Your task to perform on an android device: change the upload size in google photos Image 0: 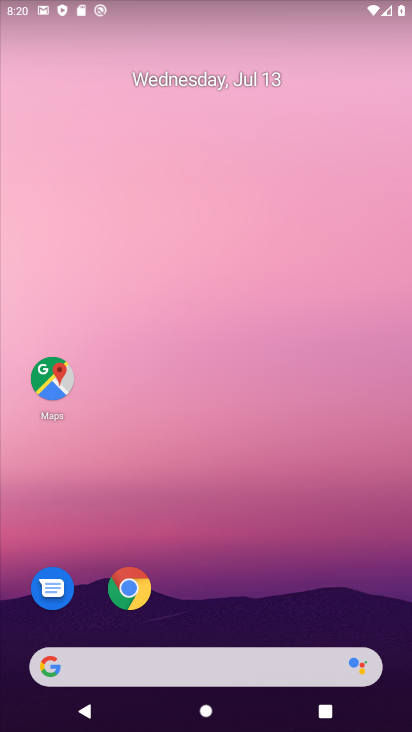
Step 0: drag from (204, 606) to (211, 165)
Your task to perform on an android device: change the upload size in google photos Image 1: 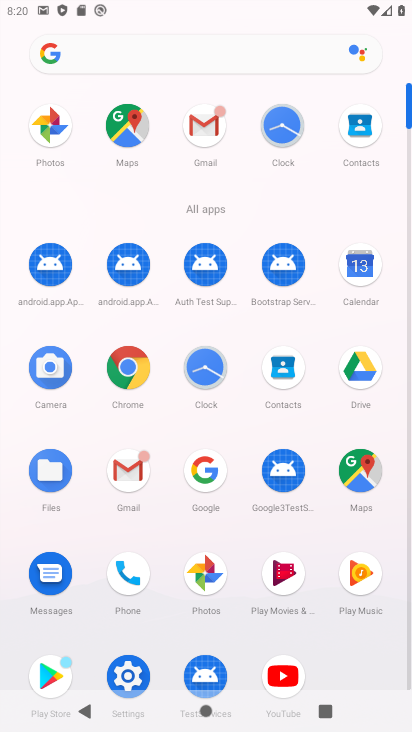
Step 1: click (199, 579)
Your task to perform on an android device: change the upload size in google photos Image 2: 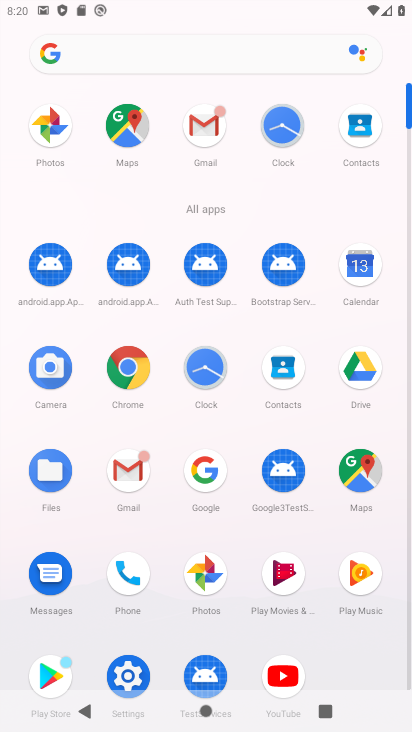
Step 2: click (211, 575)
Your task to perform on an android device: change the upload size in google photos Image 3: 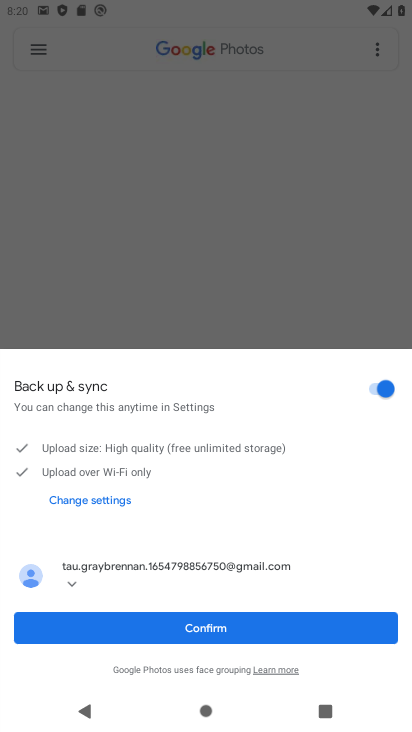
Step 3: click (204, 629)
Your task to perform on an android device: change the upload size in google photos Image 4: 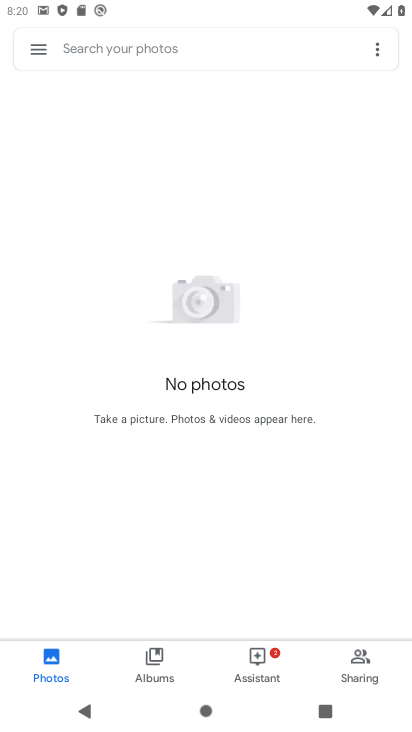
Step 4: click (39, 47)
Your task to perform on an android device: change the upload size in google photos Image 5: 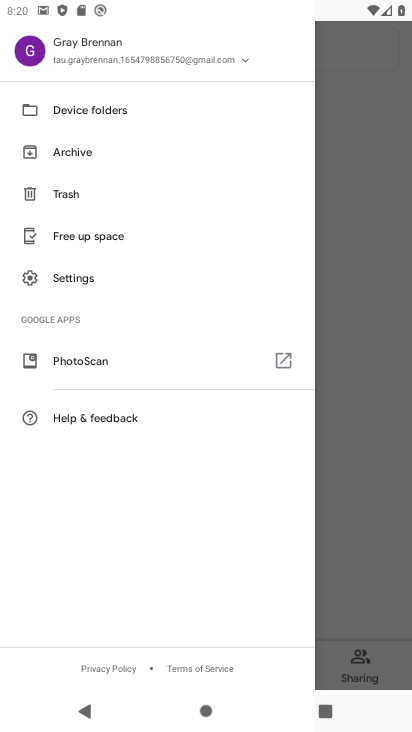
Step 5: click (60, 287)
Your task to perform on an android device: change the upload size in google photos Image 6: 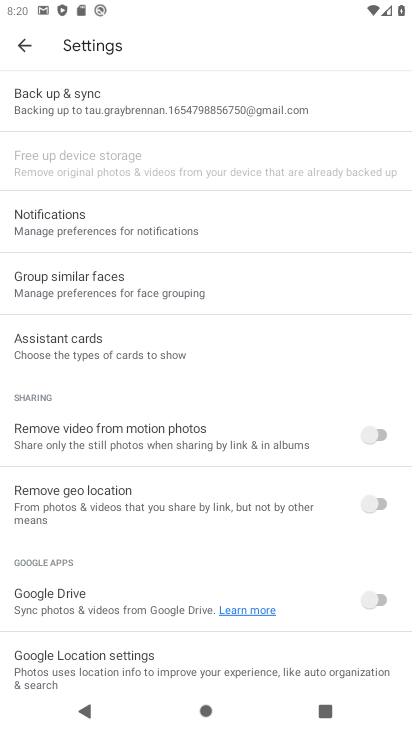
Step 6: click (108, 94)
Your task to perform on an android device: change the upload size in google photos Image 7: 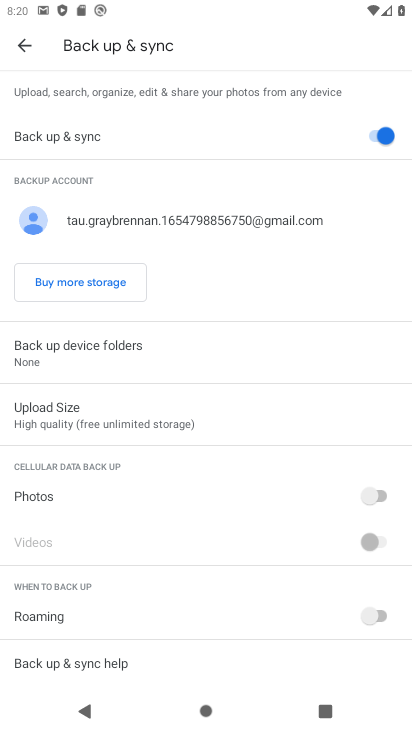
Step 7: click (93, 421)
Your task to perform on an android device: change the upload size in google photos Image 8: 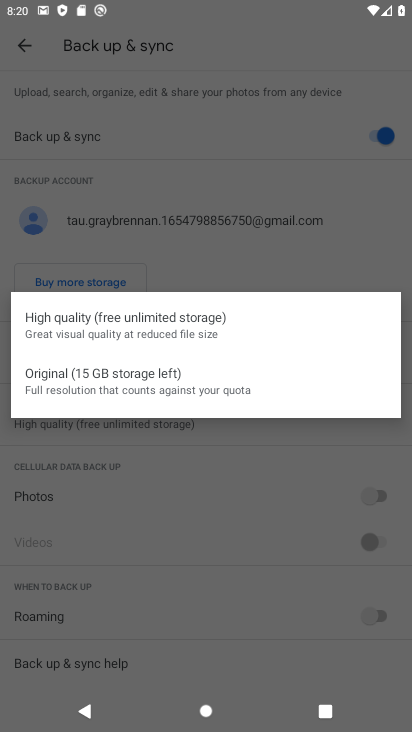
Step 8: click (104, 386)
Your task to perform on an android device: change the upload size in google photos Image 9: 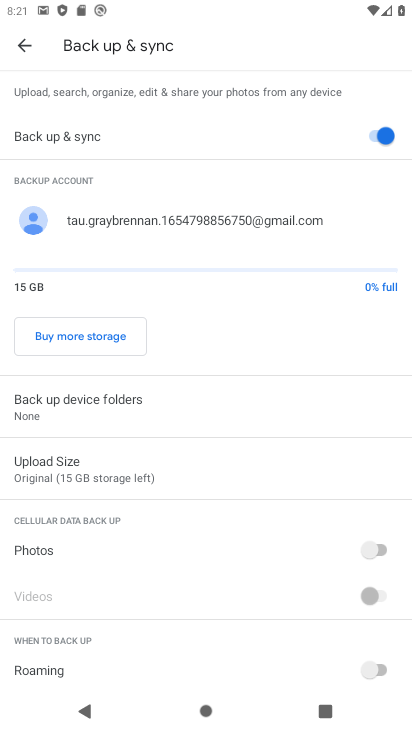
Step 9: task complete